Your task to perform on an android device: See recent photos Image 0: 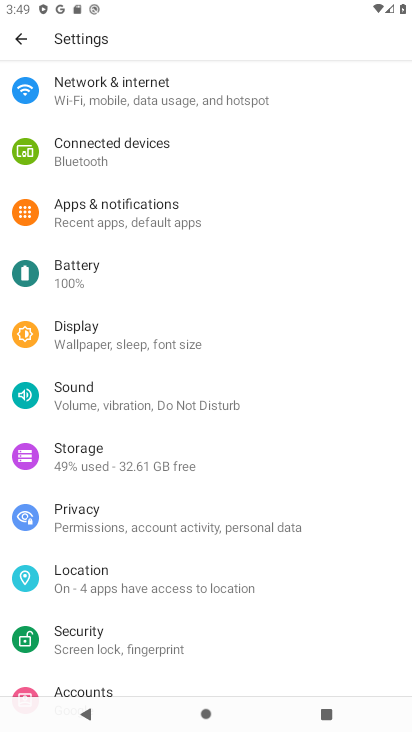
Step 0: task complete